Your task to perform on an android device: Check the news Image 0: 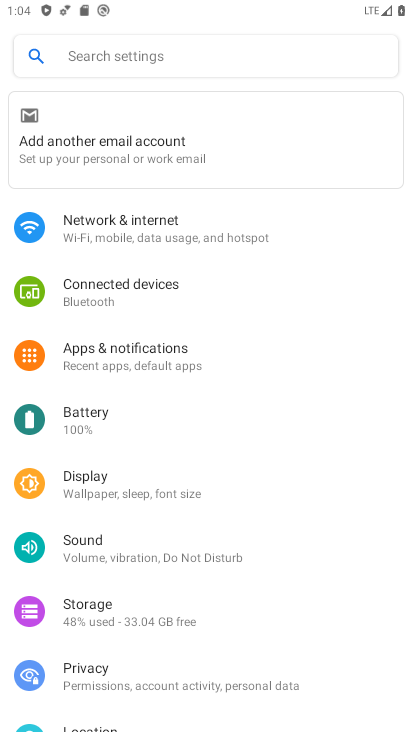
Step 0: press home button
Your task to perform on an android device: Check the news Image 1: 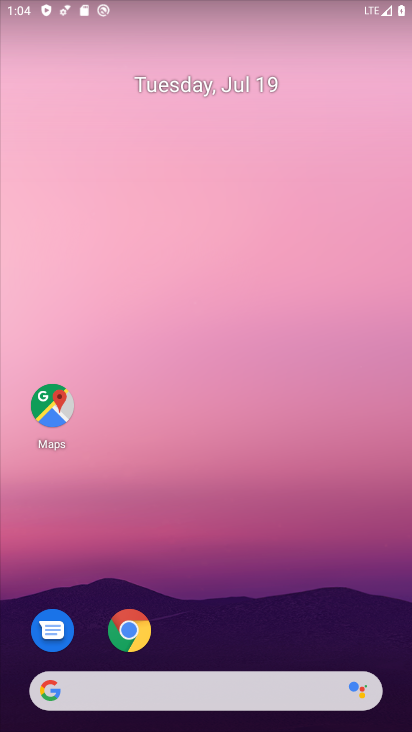
Step 1: task complete